Your task to perform on an android device: change the clock display to show seconds Image 0: 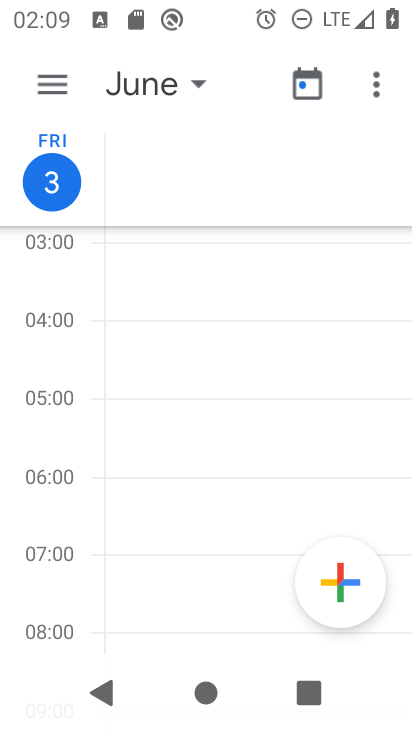
Step 0: press home button
Your task to perform on an android device: change the clock display to show seconds Image 1: 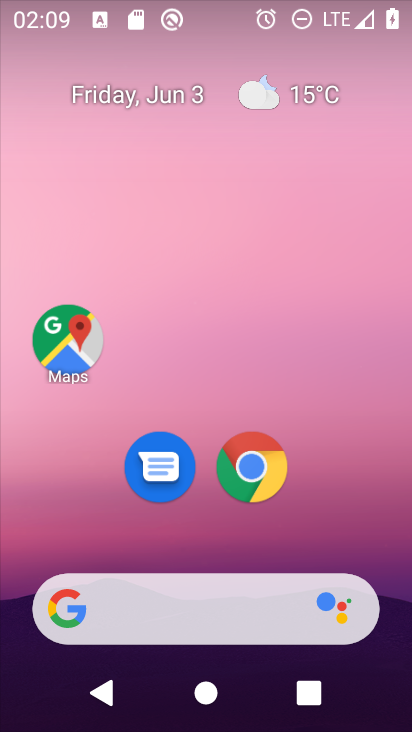
Step 1: drag from (395, 611) to (342, 101)
Your task to perform on an android device: change the clock display to show seconds Image 2: 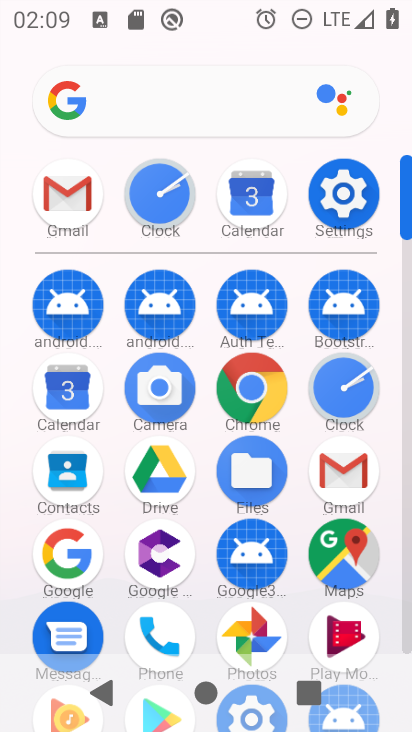
Step 2: click (341, 388)
Your task to perform on an android device: change the clock display to show seconds Image 3: 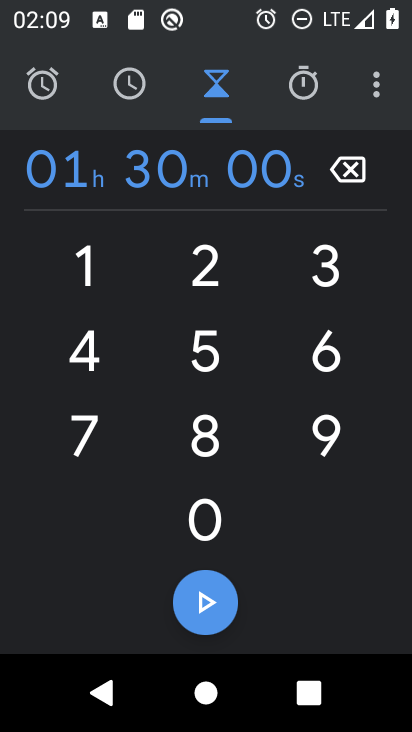
Step 3: click (379, 89)
Your task to perform on an android device: change the clock display to show seconds Image 4: 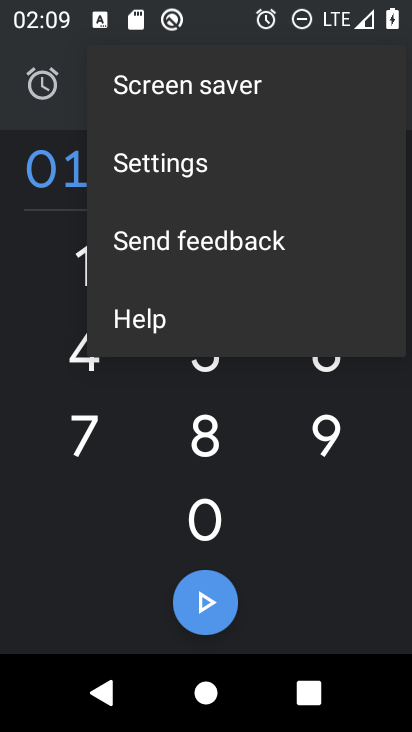
Step 4: click (140, 167)
Your task to perform on an android device: change the clock display to show seconds Image 5: 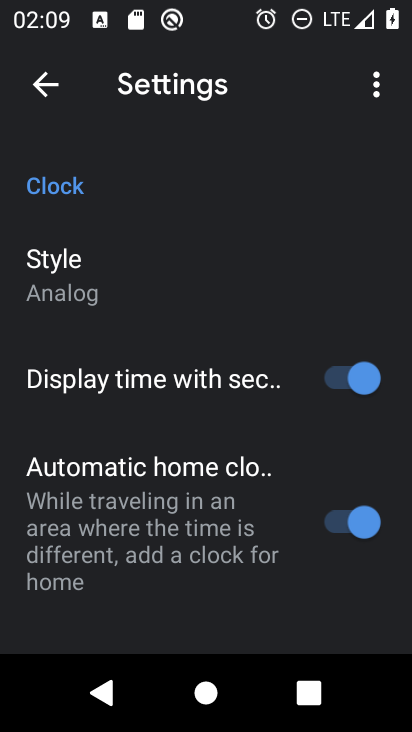
Step 5: task complete